Your task to perform on an android device: toggle show notifications on the lock screen Image 0: 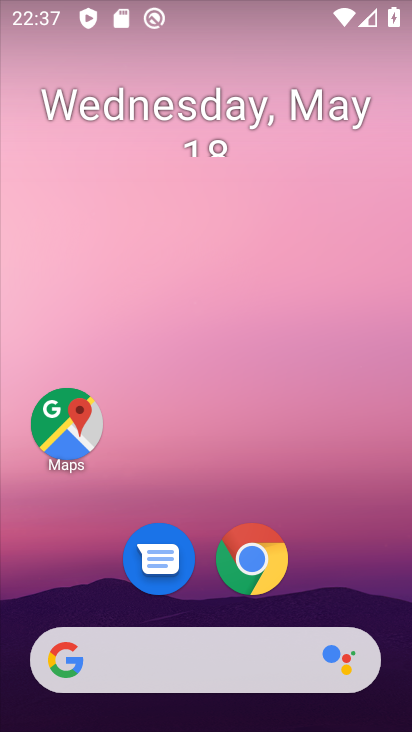
Step 0: drag from (312, 582) to (242, 185)
Your task to perform on an android device: toggle show notifications on the lock screen Image 1: 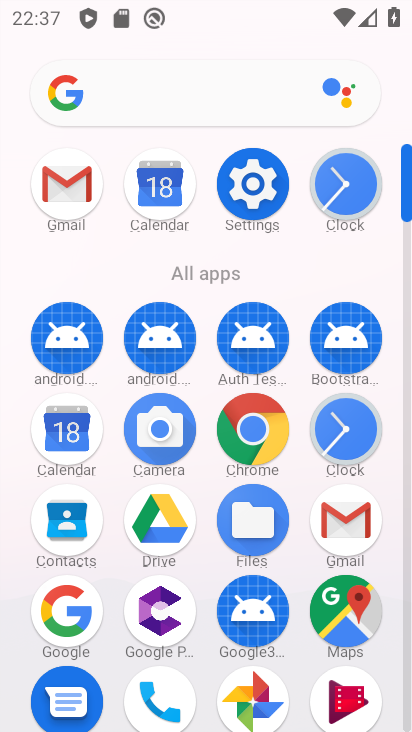
Step 1: click (254, 193)
Your task to perform on an android device: toggle show notifications on the lock screen Image 2: 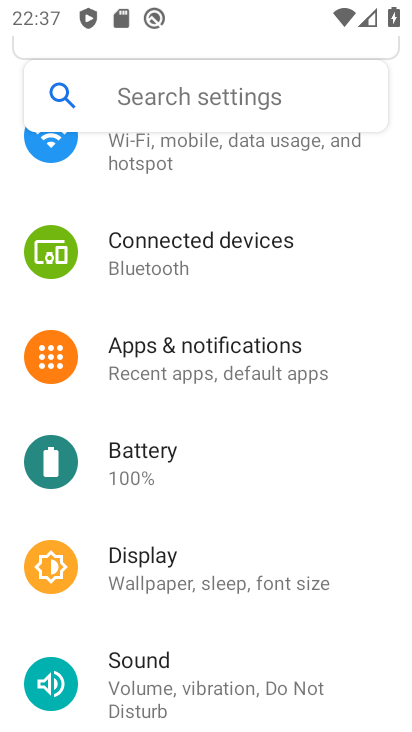
Step 2: drag from (221, 586) to (210, 207)
Your task to perform on an android device: toggle show notifications on the lock screen Image 3: 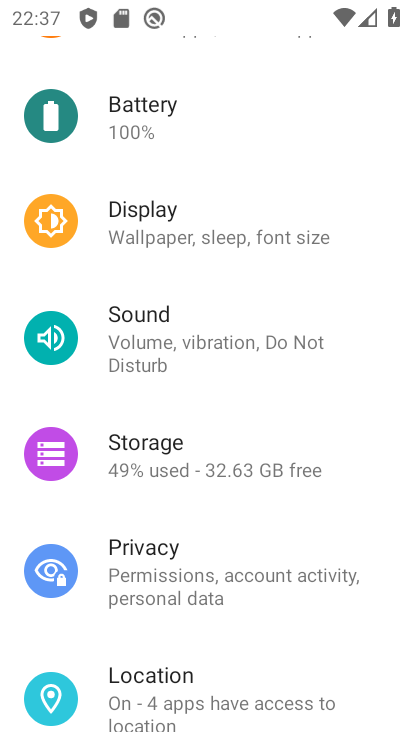
Step 3: drag from (214, 184) to (208, 255)
Your task to perform on an android device: toggle show notifications on the lock screen Image 4: 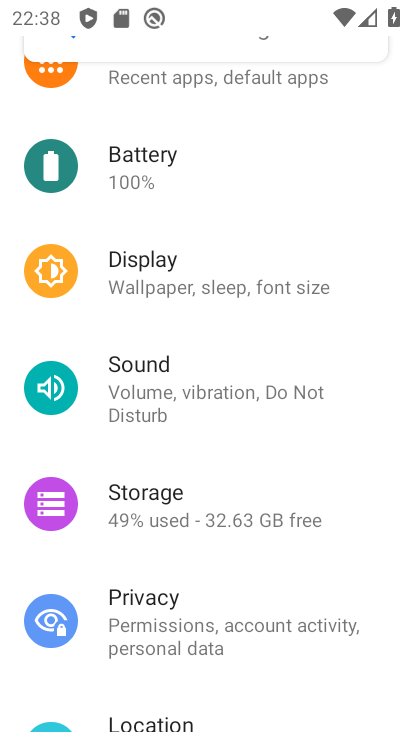
Step 4: drag from (172, 214) to (179, 358)
Your task to perform on an android device: toggle show notifications on the lock screen Image 5: 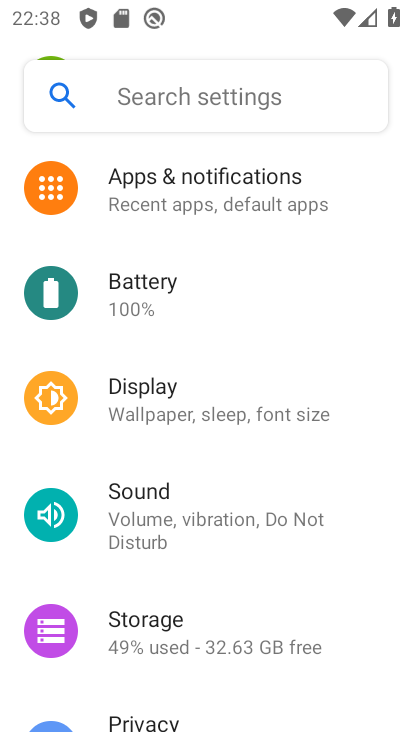
Step 5: click (147, 208)
Your task to perform on an android device: toggle show notifications on the lock screen Image 6: 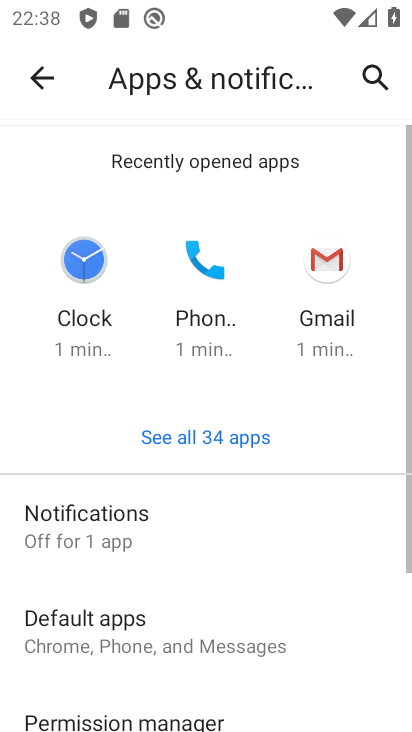
Step 6: click (73, 517)
Your task to perform on an android device: toggle show notifications on the lock screen Image 7: 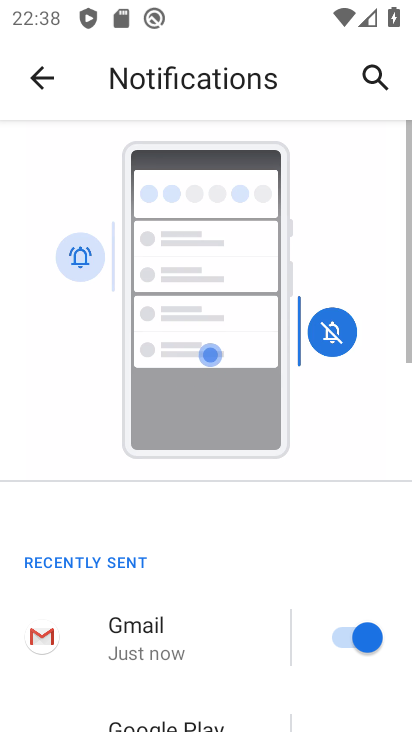
Step 7: drag from (156, 640) to (194, 40)
Your task to perform on an android device: toggle show notifications on the lock screen Image 8: 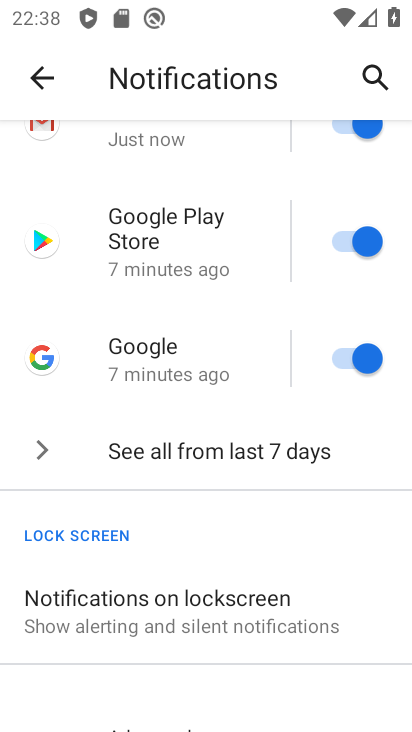
Step 8: click (108, 618)
Your task to perform on an android device: toggle show notifications on the lock screen Image 9: 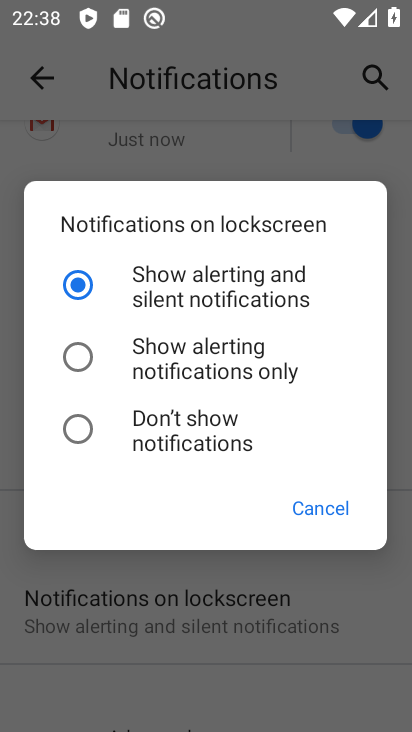
Step 9: click (72, 423)
Your task to perform on an android device: toggle show notifications on the lock screen Image 10: 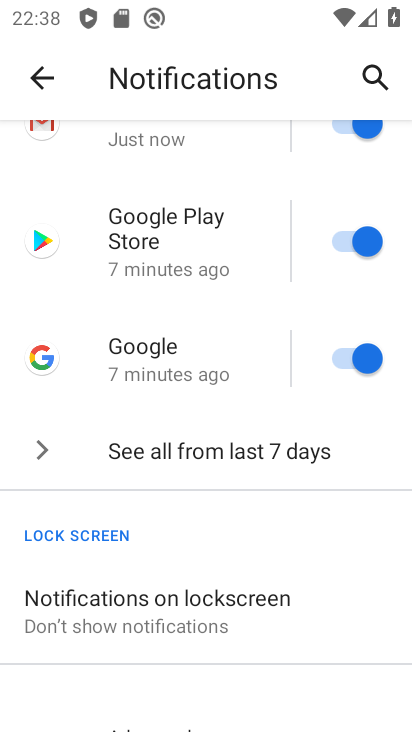
Step 10: task complete